Your task to perform on an android device: Go to Amazon Image 0: 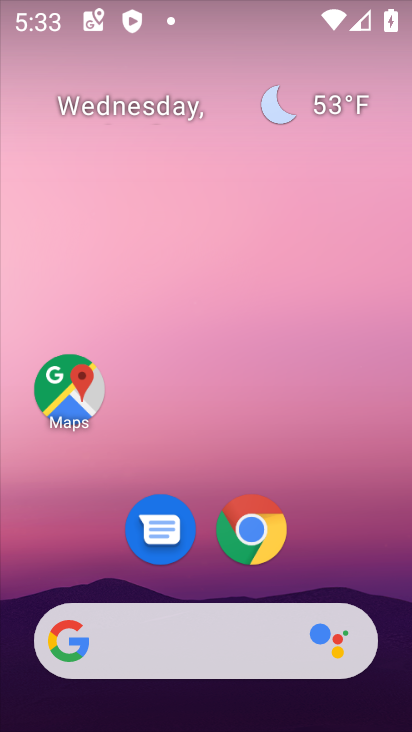
Step 0: click (257, 525)
Your task to perform on an android device: Go to Amazon Image 1: 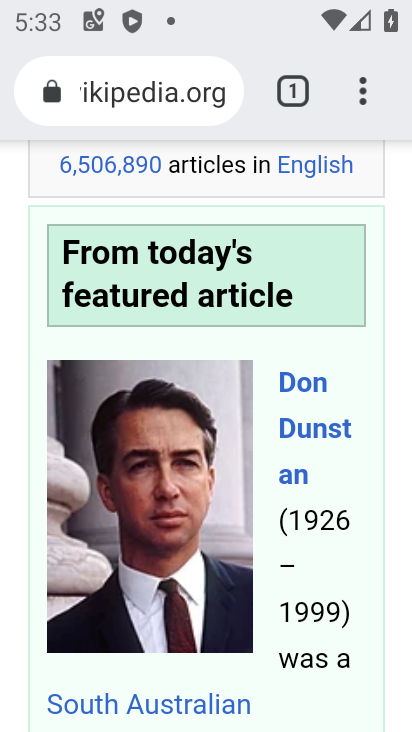
Step 1: press back button
Your task to perform on an android device: Go to Amazon Image 2: 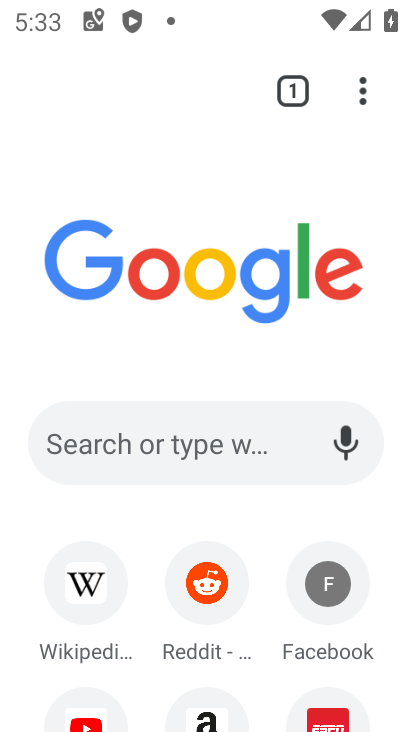
Step 2: click (197, 723)
Your task to perform on an android device: Go to Amazon Image 3: 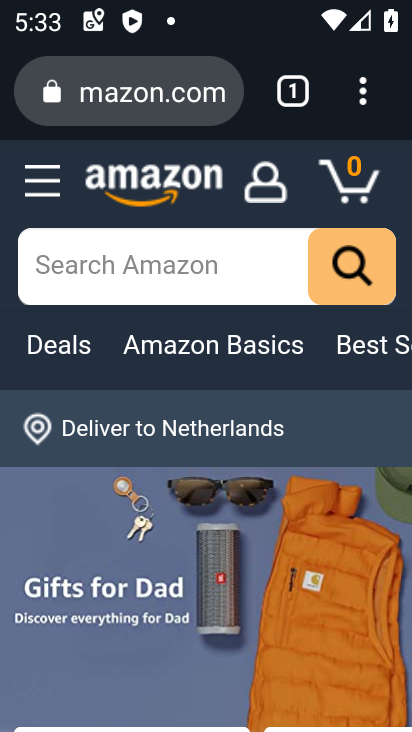
Step 3: task complete